Your task to perform on an android device: Open sound settings Image 0: 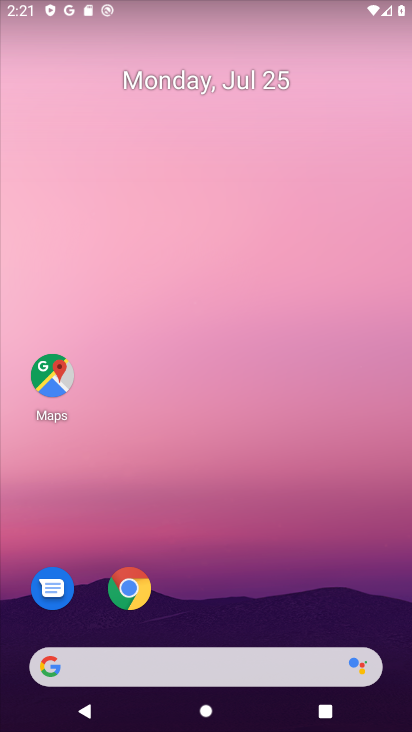
Step 0: press home button
Your task to perform on an android device: Open sound settings Image 1: 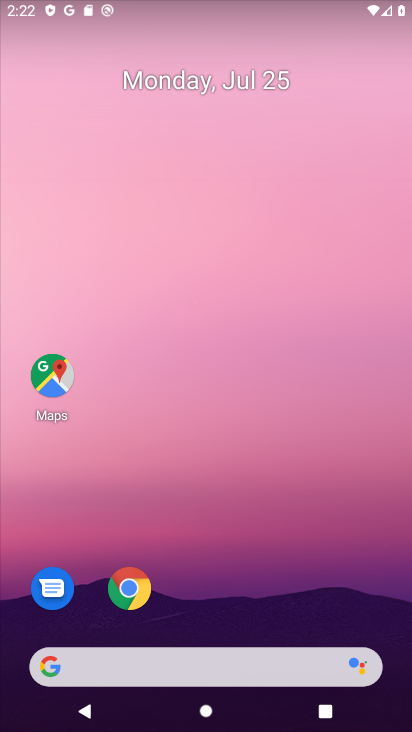
Step 1: drag from (216, 502) to (225, 0)
Your task to perform on an android device: Open sound settings Image 2: 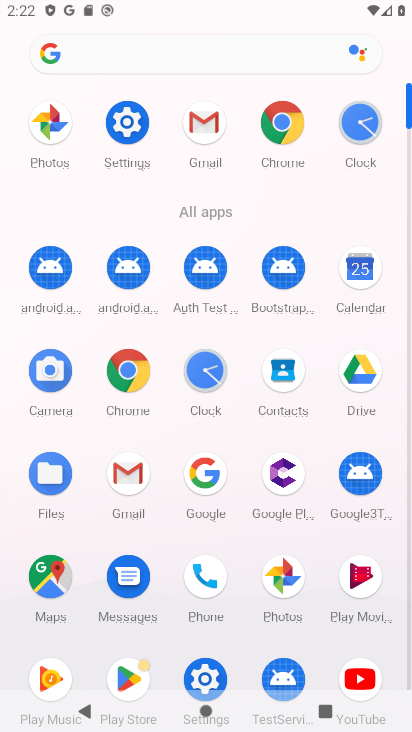
Step 2: click (127, 112)
Your task to perform on an android device: Open sound settings Image 3: 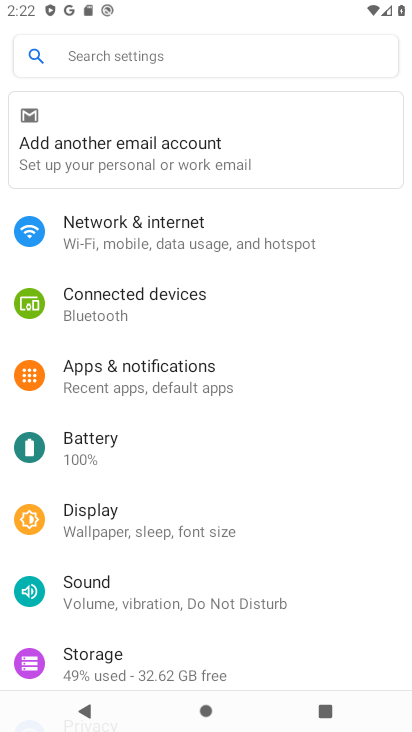
Step 3: click (125, 592)
Your task to perform on an android device: Open sound settings Image 4: 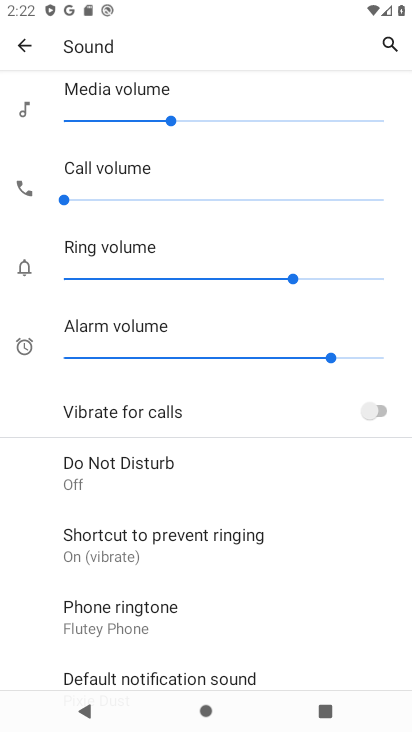
Step 4: drag from (231, 636) to (274, 96)
Your task to perform on an android device: Open sound settings Image 5: 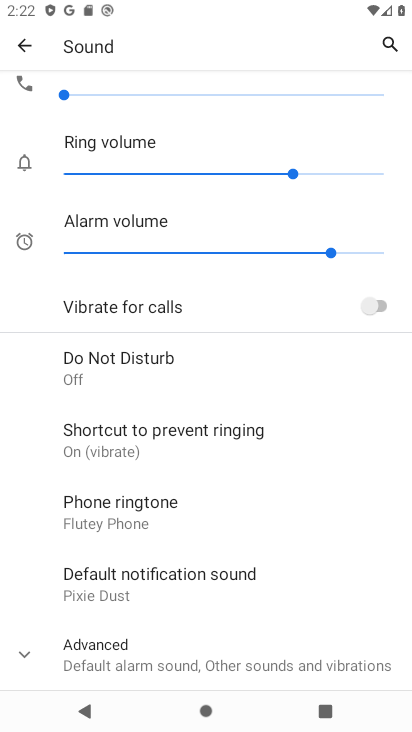
Step 5: click (29, 655)
Your task to perform on an android device: Open sound settings Image 6: 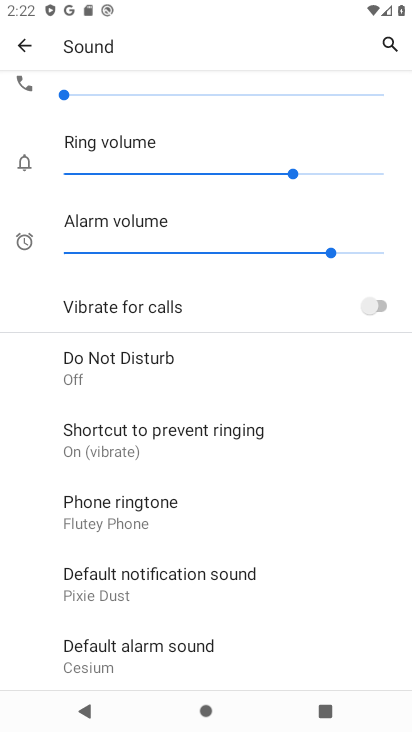
Step 6: task complete